Your task to perform on an android device: find snoozed emails in the gmail app Image 0: 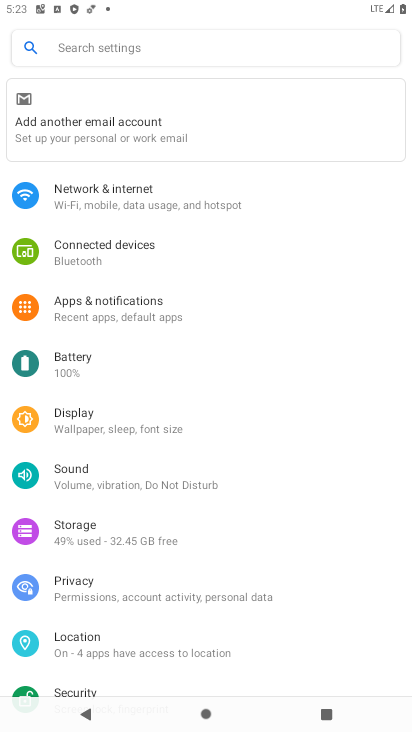
Step 0: press home button
Your task to perform on an android device: find snoozed emails in the gmail app Image 1: 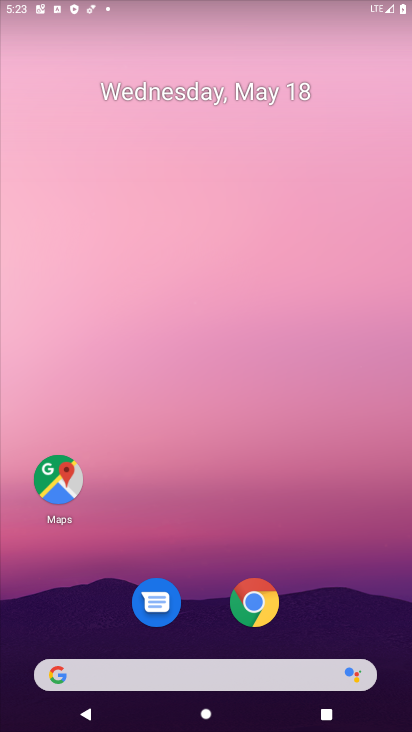
Step 1: drag from (294, 686) to (395, 106)
Your task to perform on an android device: find snoozed emails in the gmail app Image 2: 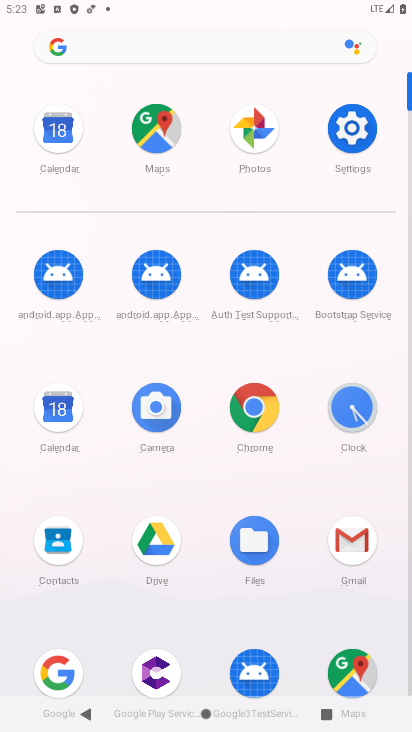
Step 2: click (349, 532)
Your task to perform on an android device: find snoozed emails in the gmail app Image 3: 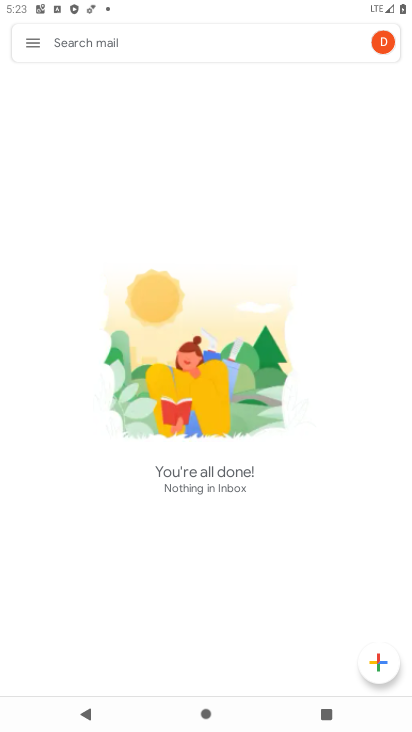
Step 3: click (29, 43)
Your task to perform on an android device: find snoozed emails in the gmail app Image 4: 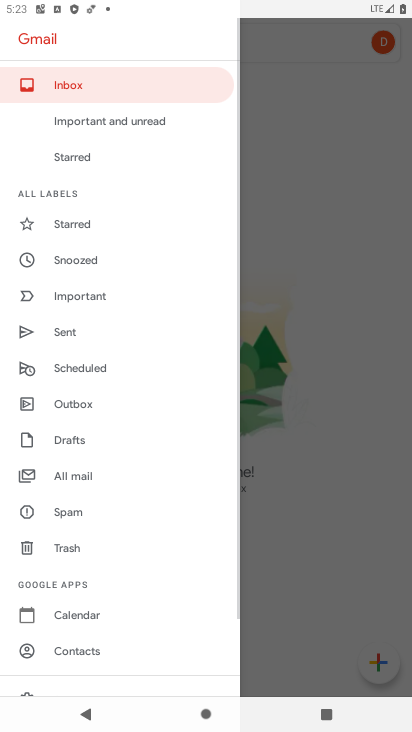
Step 4: click (110, 255)
Your task to perform on an android device: find snoozed emails in the gmail app Image 5: 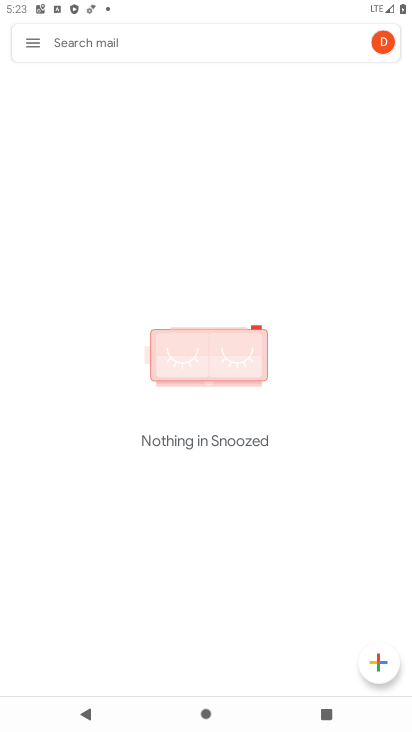
Step 5: task complete